Your task to perform on an android device: allow notifications from all sites in the chrome app Image 0: 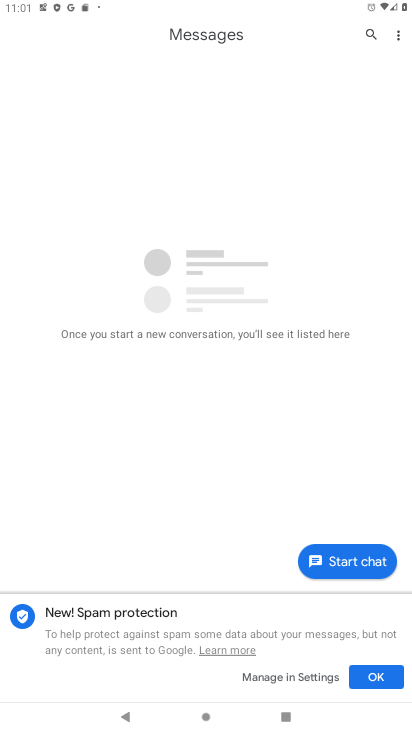
Step 0: press home button
Your task to perform on an android device: allow notifications from all sites in the chrome app Image 1: 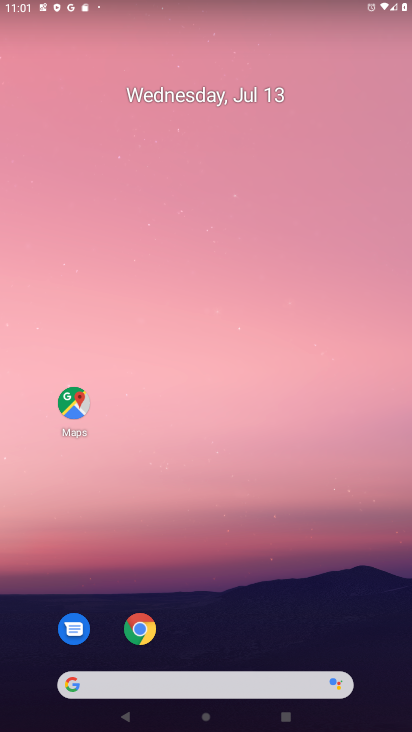
Step 1: click (143, 616)
Your task to perform on an android device: allow notifications from all sites in the chrome app Image 2: 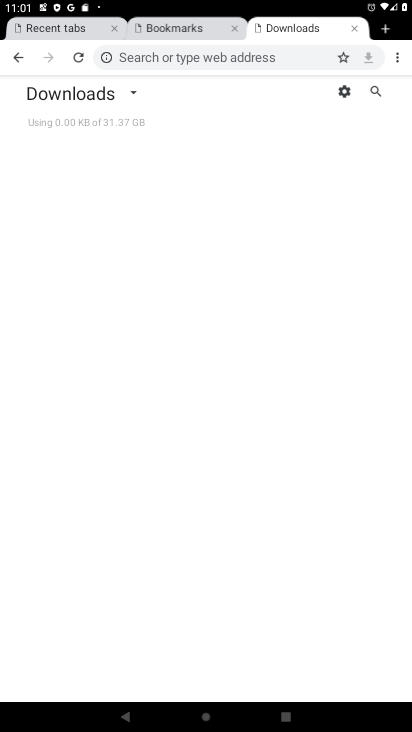
Step 2: click (400, 65)
Your task to perform on an android device: allow notifications from all sites in the chrome app Image 3: 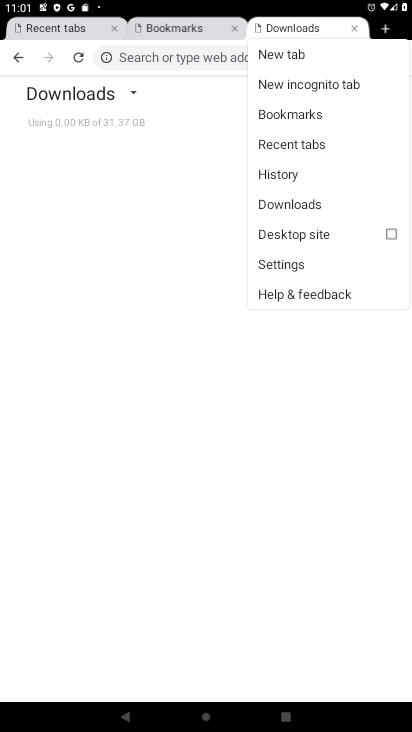
Step 3: click (306, 261)
Your task to perform on an android device: allow notifications from all sites in the chrome app Image 4: 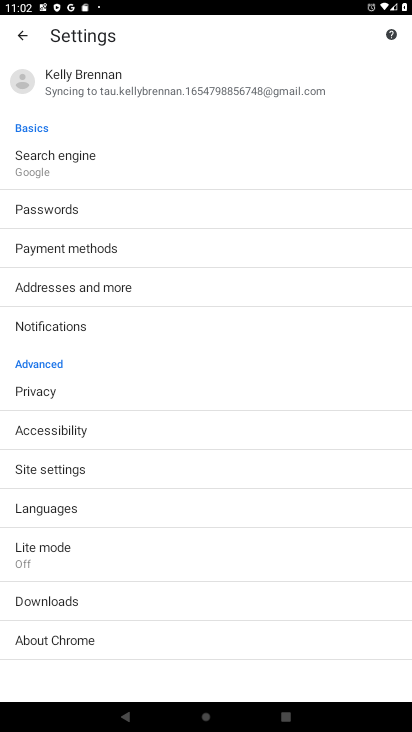
Step 4: click (118, 470)
Your task to perform on an android device: allow notifications from all sites in the chrome app Image 5: 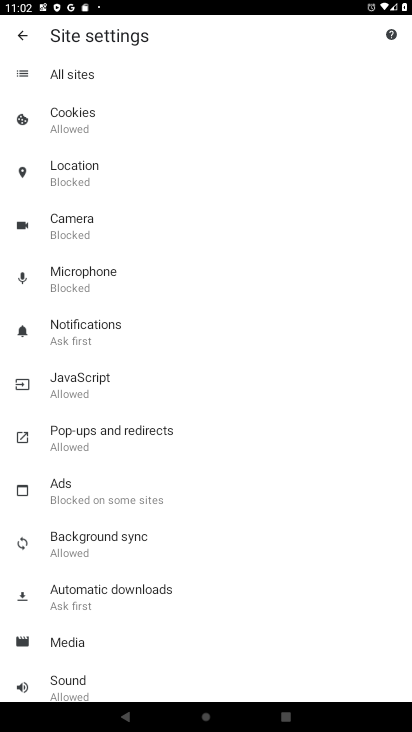
Step 5: task complete